Your task to perform on an android device: open a bookmark in the chrome app Image 0: 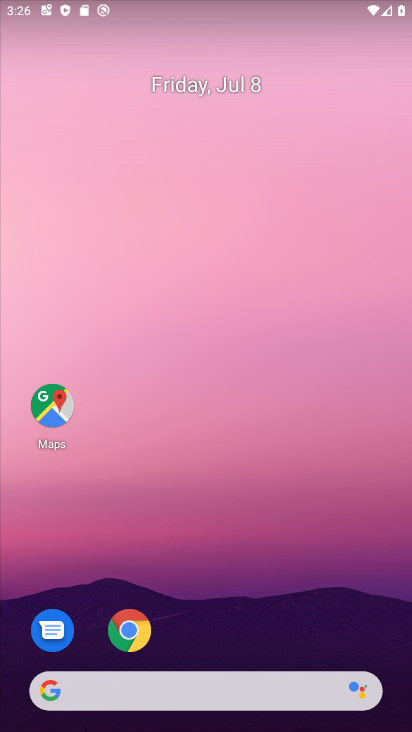
Step 0: click (141, 631)
Your task to perform on an android device: open a bookmark in the chrome app Image 1: 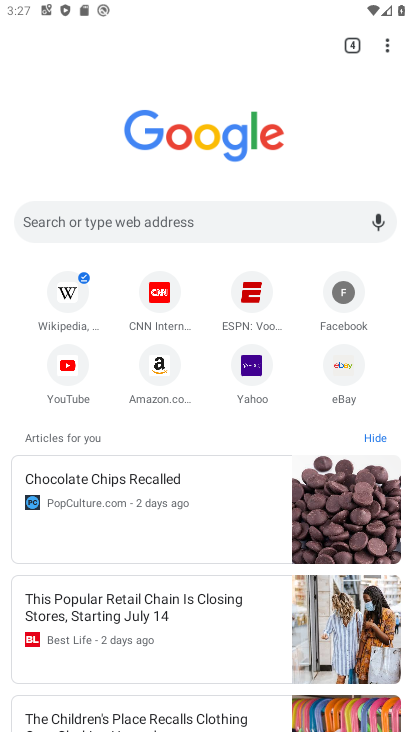
Step 1: click (395, 50)
Your task to perform on an android device: open a bookmark in the chrome app Image 2: 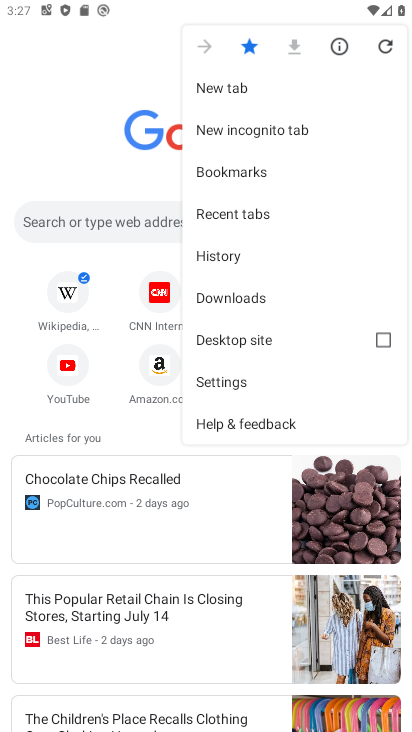
Step 2: click (341, 163)
Your task to perform on an android device: open a bookmark in the chrome app Image 3: 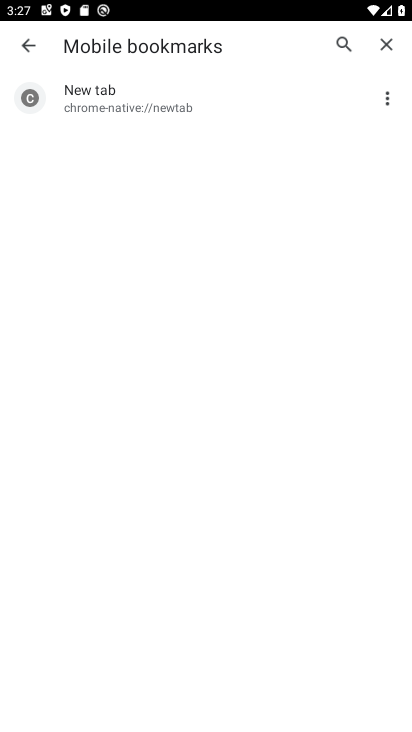
Step 3: task complete